Your task to perform on an android device: Empty the shopping cart on newegg.com. Add "razer huntsman" to the cart on newegg.com Image 0: 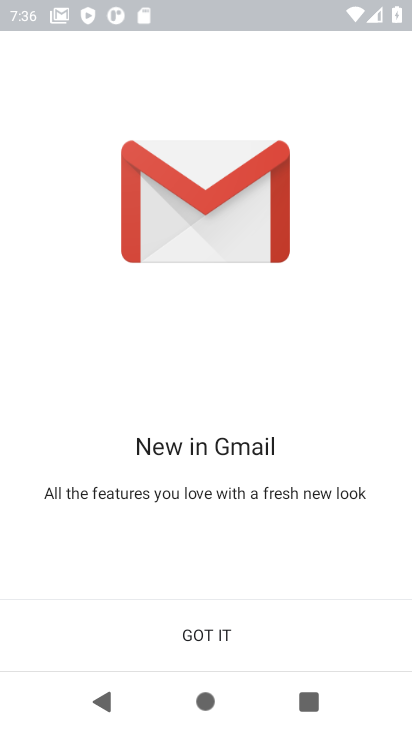
Step 0: task impossible